Your task to perform on an android device: move an email to a new category in the gmail app Image 0: 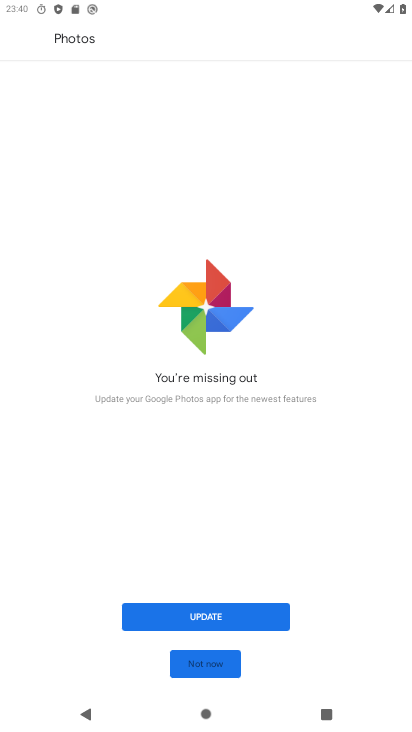
Step 0: press home button
Your task to perform on an android device: move an email to a new category in the gmail app Image 1: 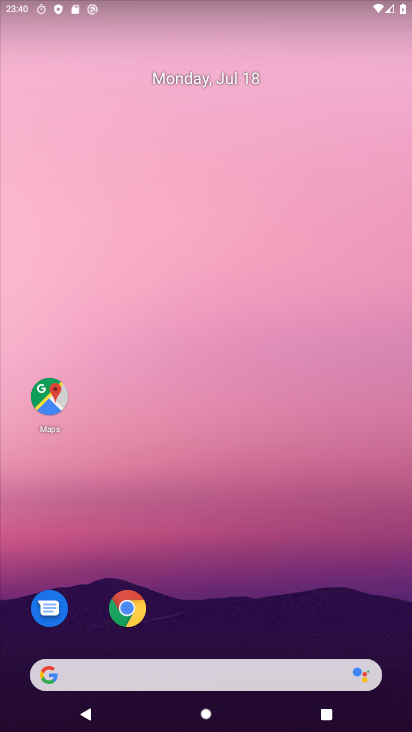
Step 1: drag from (197, 677) to (241, 40)
Your task to perform on an android device: move an email to a new category in the gmail app Image 2: 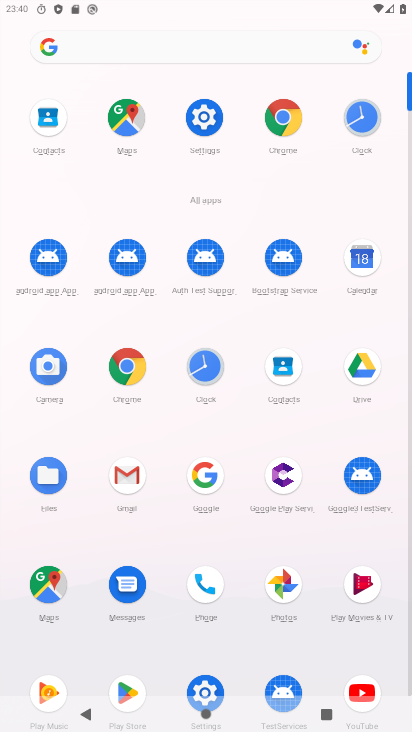
Step 2: click (125, 476)
Your task to perform on an android device: move an email to a new category in the gmail app Image 3: 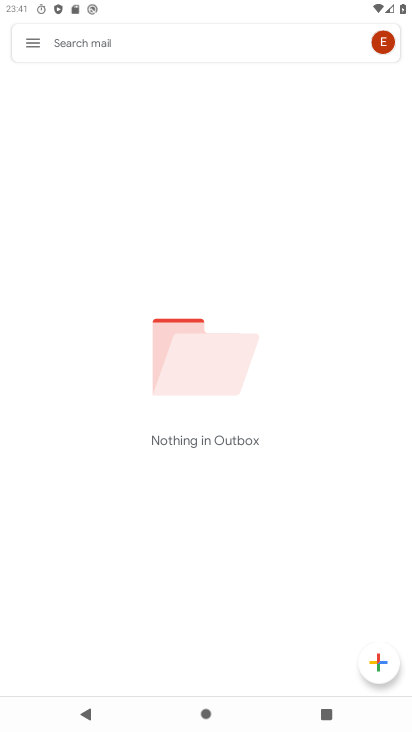
Step 3: click (32, 44)
Your task to perform on an android device: move an email to a new category in the gmail app Image 4: 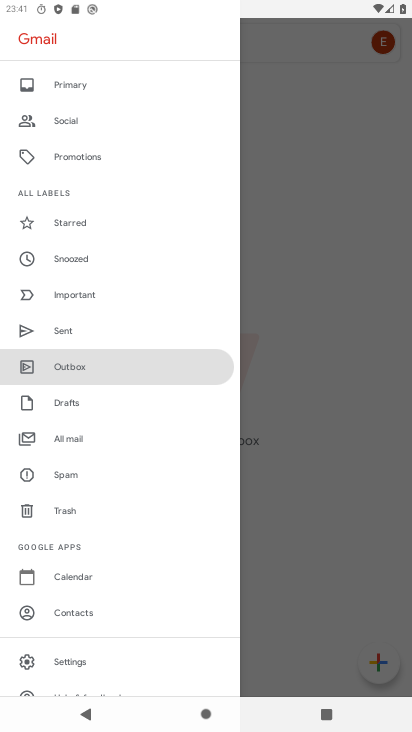
Step 4: click (65, 434)
Your task to perform on an android device: move an email to a new category in the gmail app Image 5: 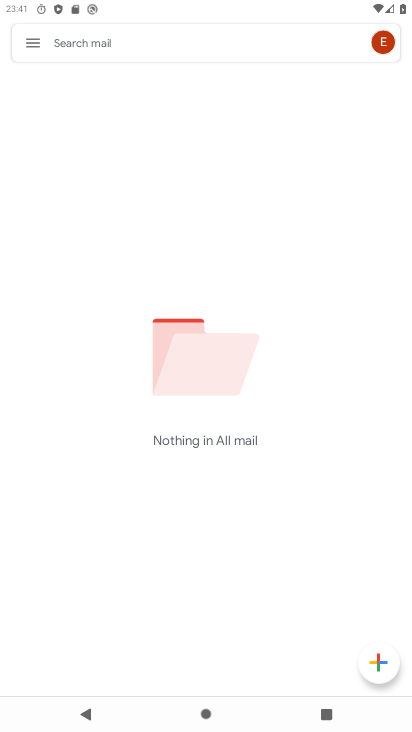
Step 5: click (31, 45)
Your task to perform on an android device: move an email to a new category in the gmail app Image 6: 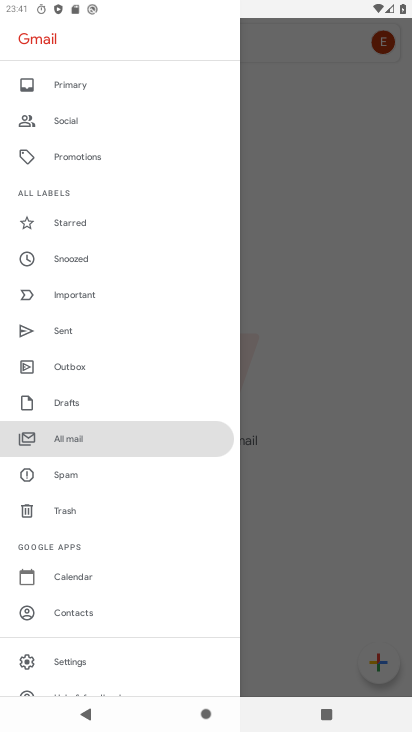
Step 6: click (64, 83)
Your task to perform on an android device: move an email to a new category in the gmail app Image 7: 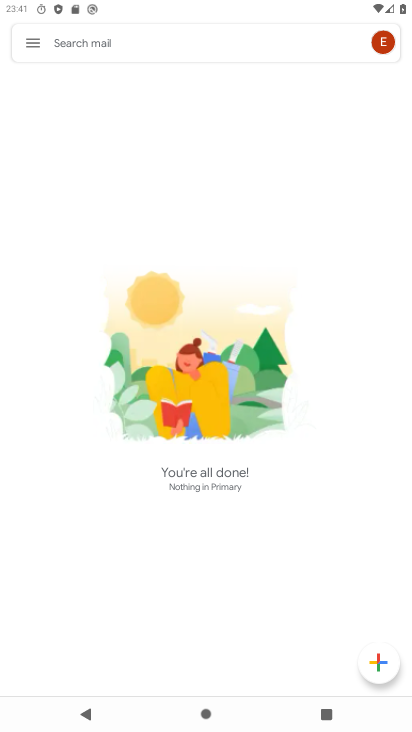
Step 7: click (31, 43)
Your task to perform on an android device: move an email to a new category in the gmail app Image 8: 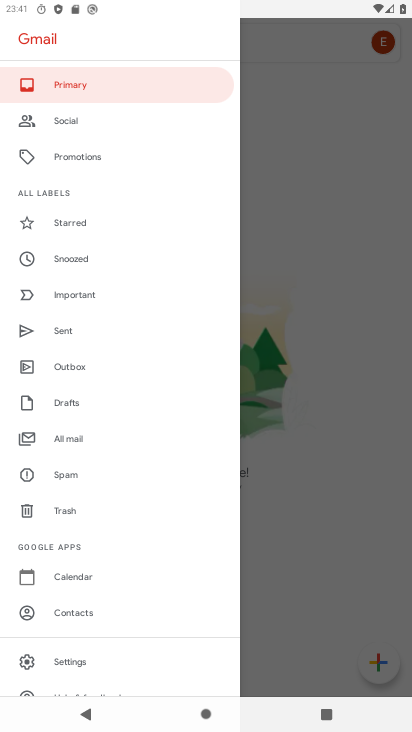
Step 8: click (70, 364)
Your task to perform on an android device: move an email to a new category in the gmail app Image 9: 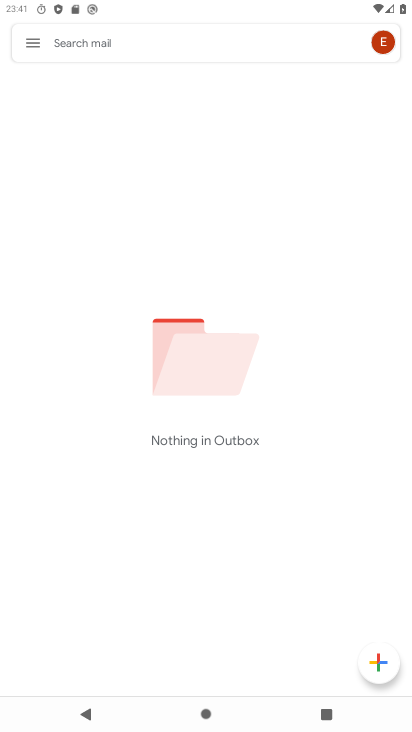
Step 9: click (27, 43)
Your task to perform on an android device: move an email to a new category in the gmail app Image 10: 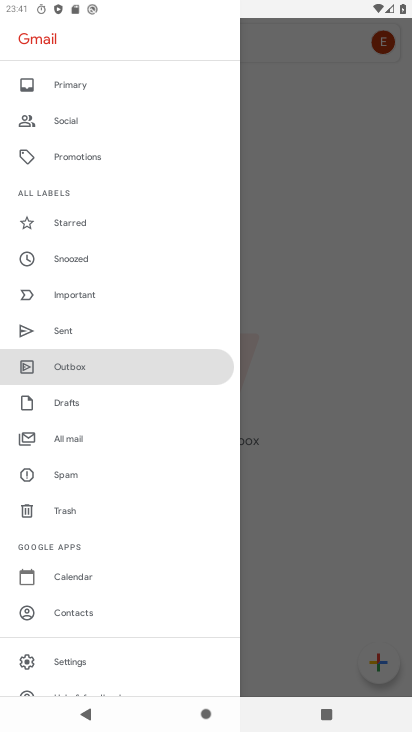
Step 10: click (82, 408)
Your task to perform on an android device: move an email to a new category in the gmail app Image 11: 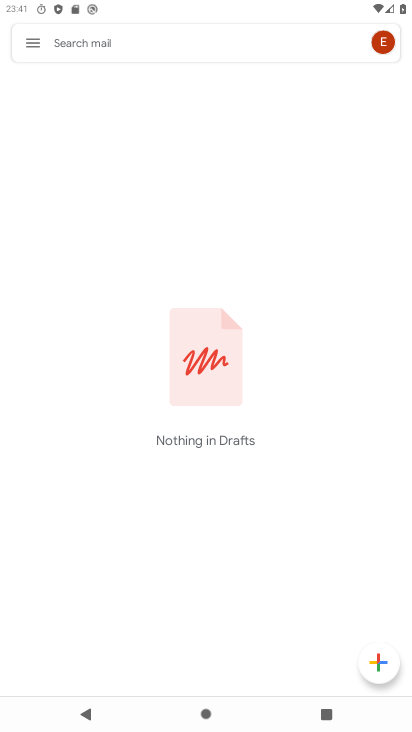
Step 11: click (37, 45)
Your task to perform on an android device: move an email to a new category in the gmail app Image 12: 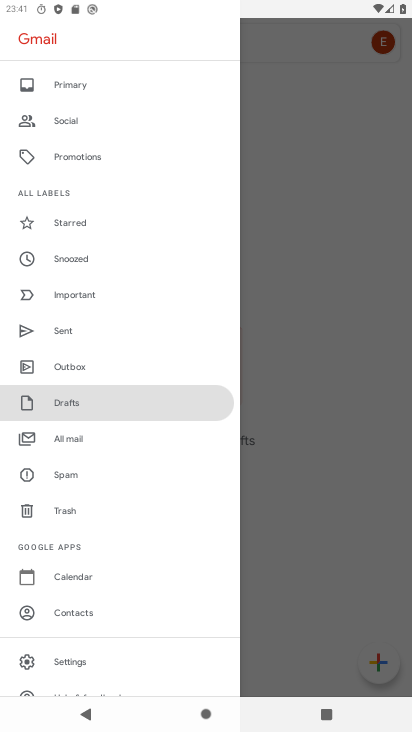
Step 12: click (85, 440)
Your task to perform on an android device: move an email to a new category in the gmail app Image 13: 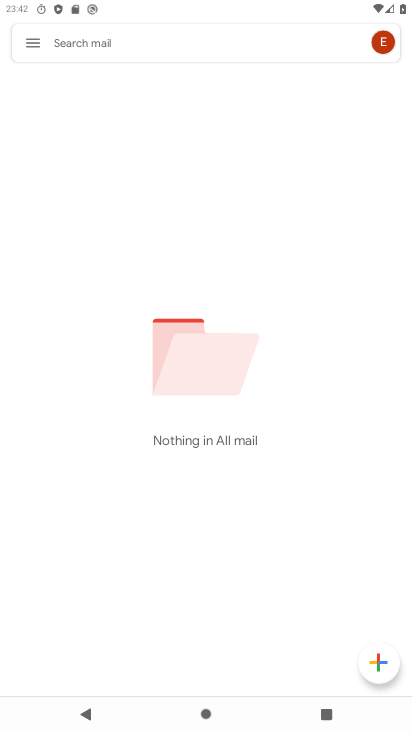
Step 13: task complete